Your task to perform on an android device: manage bookmarks in the chrome app Image 0: 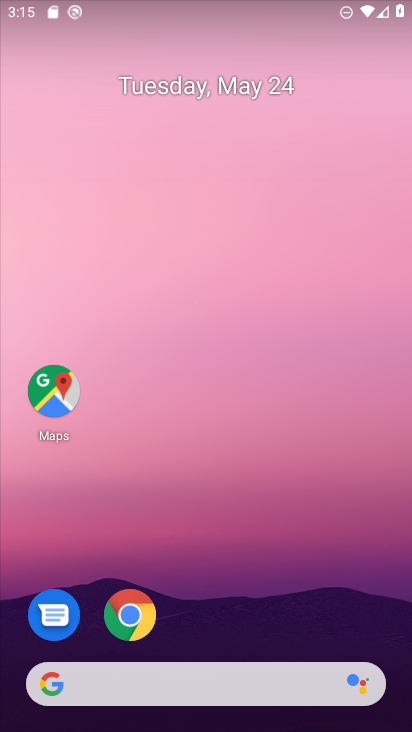
Step 0: drag from (224, 562) to (239, 28)
Your task to perform on an android device: manage bookmarks in the chrome app Image 1: 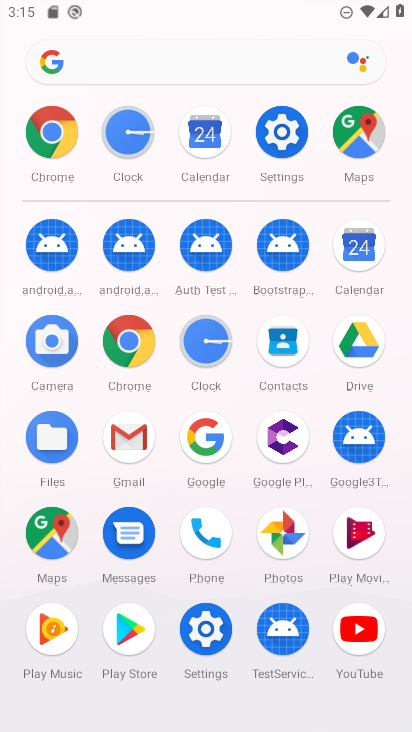
Step 1: click (67, 132)
Your task to perform on an android device: manage bookmarks in the chrome app Image 2: 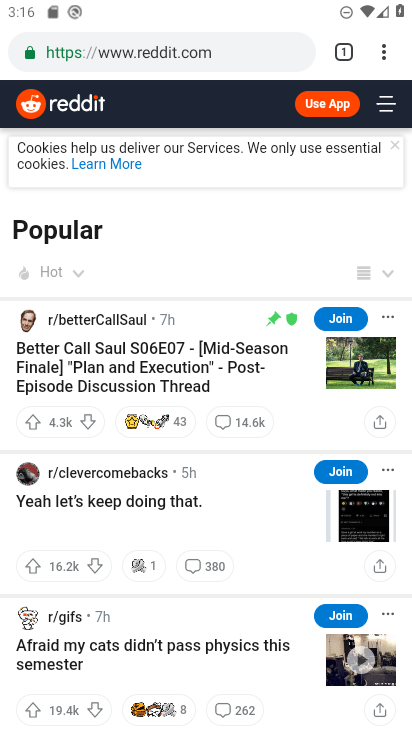
Step 2: click (377, 55)
Your task to perform on an android device: manage bookmarks in the chrome app Image 3: 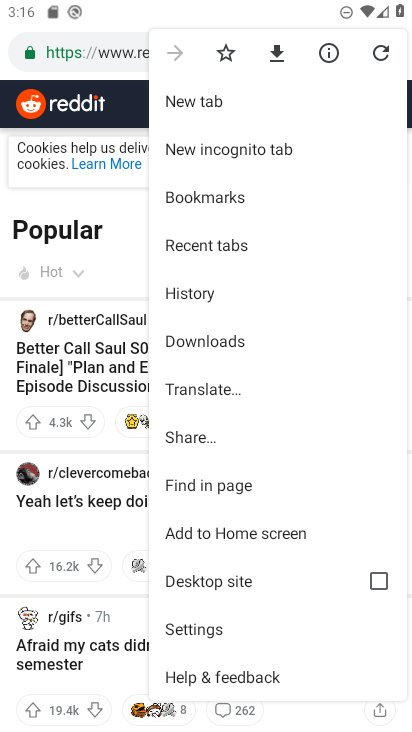
Step 3: click (229, 196)
Your task to perform on an android device: manage bookmarks in the chrome app Image 4: 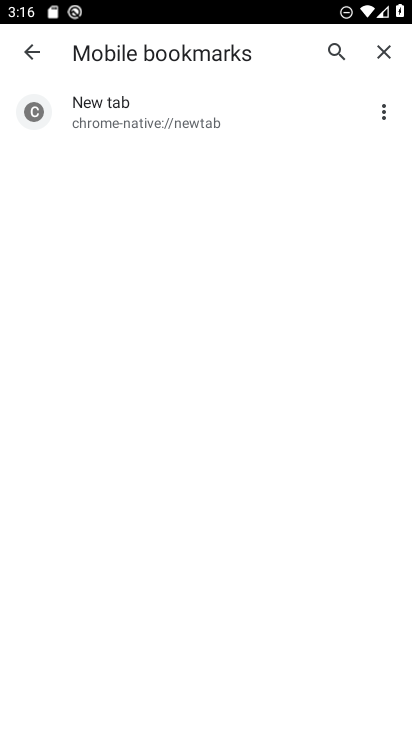
Step 4: task complete